Your task to perform on an android device: turn off notifications settings in the gmail app Image 0: 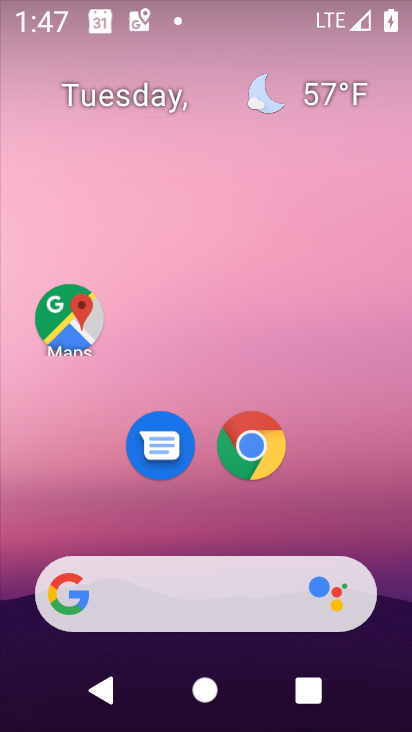
Step 0: drag from (354, 519) to (401, 125)
Your task to perform on an android device: turn off notifications settings in the gmail app Image 1: 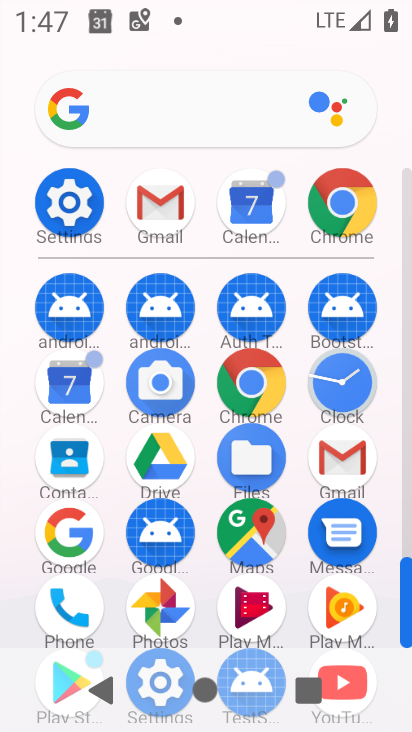
Step 1: click (353, 464)
Your task to perform on an android device: turn off notifications settings in the gmail app Image 2: 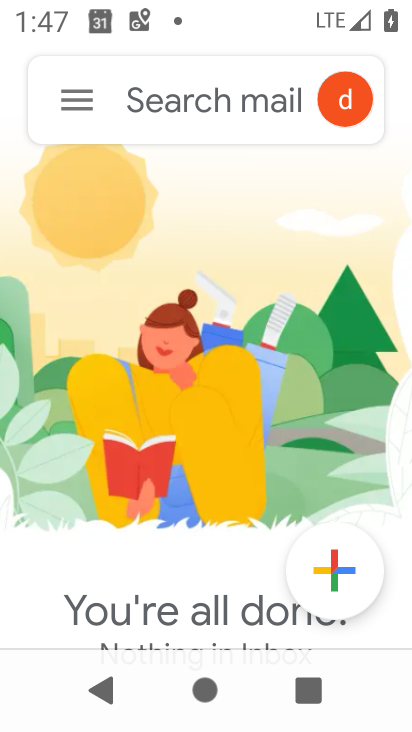
Step 2: click (83, 105)
Your task to perform on an android device: turn off notifications settings in the gmail app Image 3: 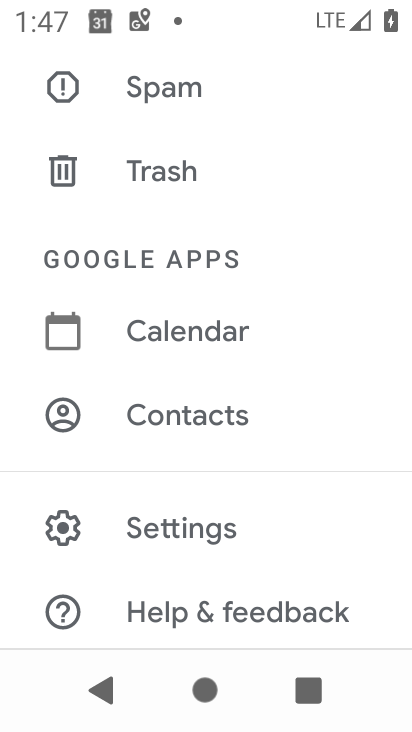
Step 3: drag from (328, 260) to (340, 345)
Your task to perform on an android device: turn off notifications settings in the gmail app Image 4: 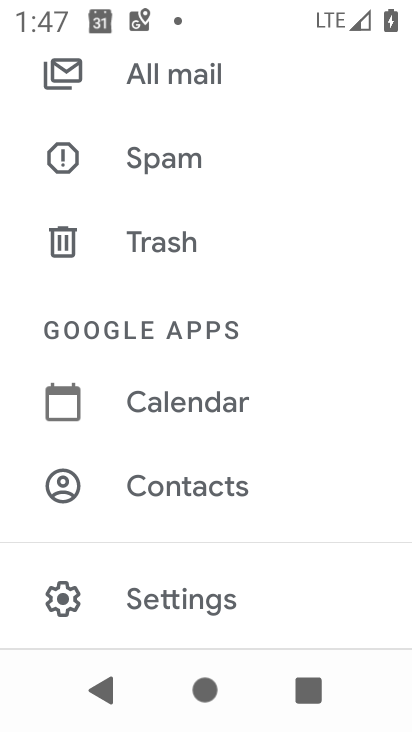
Step 4: drag from (332, 197) to (341, 311)
Your task to perform on an android device: turn off notifications settings in the gmail app Image 5: 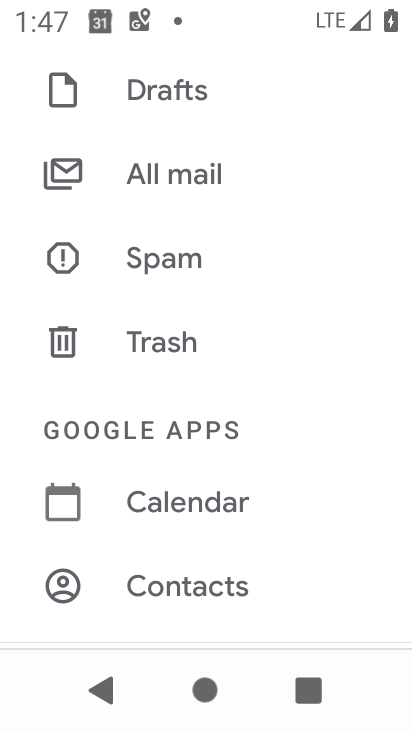
Step 5: drag from (343, 192) to (347, 324)
Your task to perform on an android device: turn off notifications settings in the gmail app Image 6: 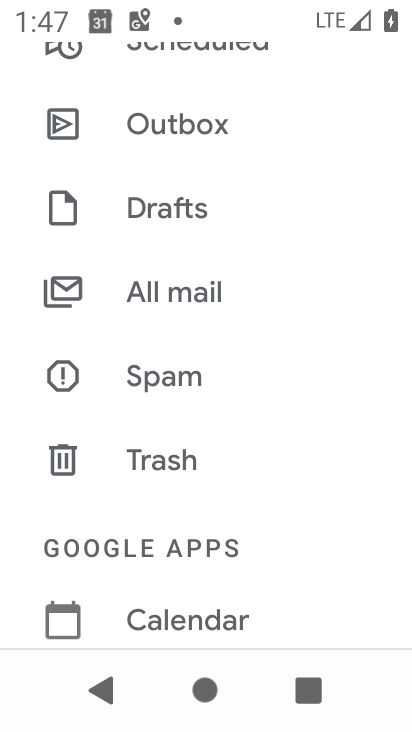
Step 6: drag from (337, 163) to (344, 257)
Your task to perform on an android device: turn off notifications settings in the gmail app Image 7: 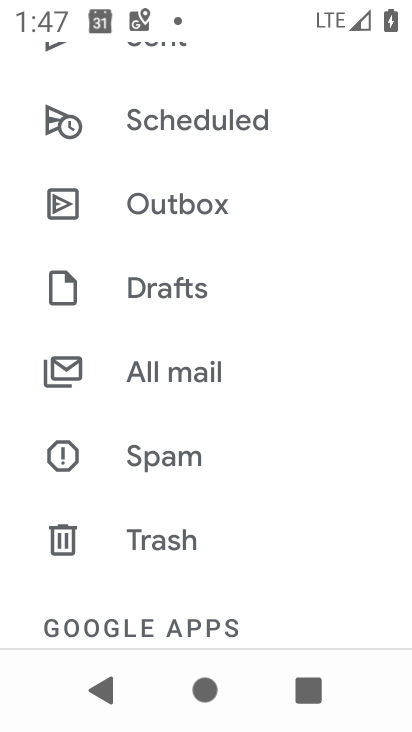
Step 7: drag from (338, 135) to (345, 244)
Your task to perform on an android device: turn off notifications settings in the gmail app Image 8: 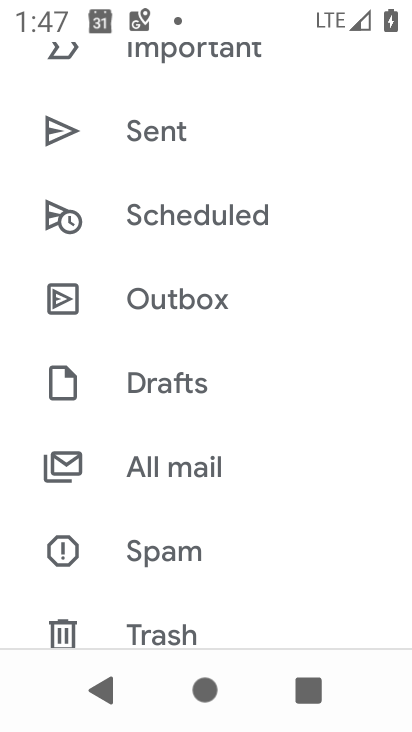
Step 8: drag from (339, 140) to (340, 253)
Your task to perform on an android device: turn off notifications settings in the gmail app Image 9: 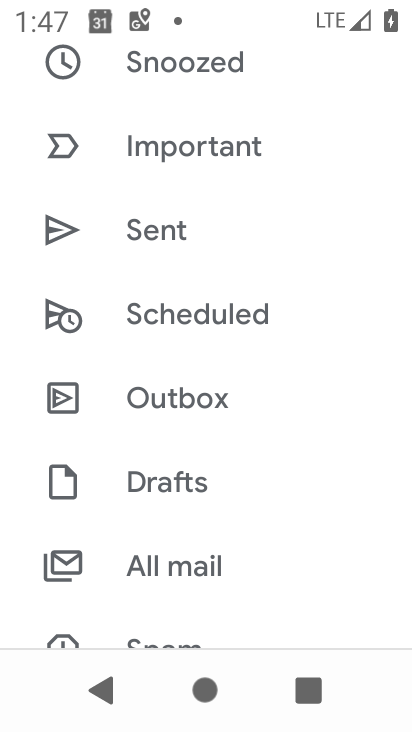
Step 9: drag from (325, 107) to (339, 249)
Your task to perform on an android device: turn off notifications settings in the gmail app Image 10: 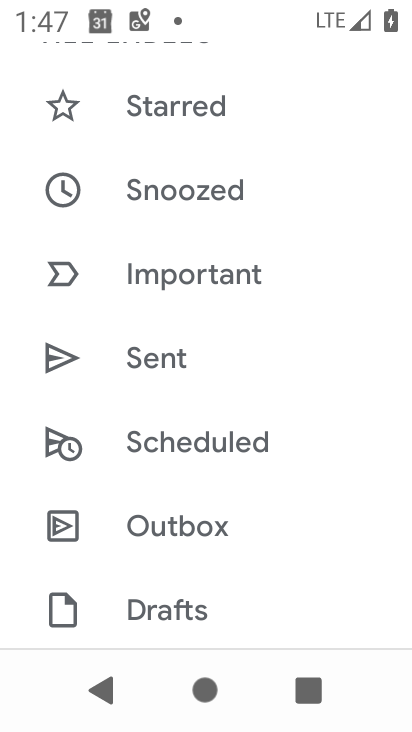
Step 10: drag from (322, 103) to (334, 211)
Your task to perform on an android device: turn off notifications settings in the gmail app Image 11: 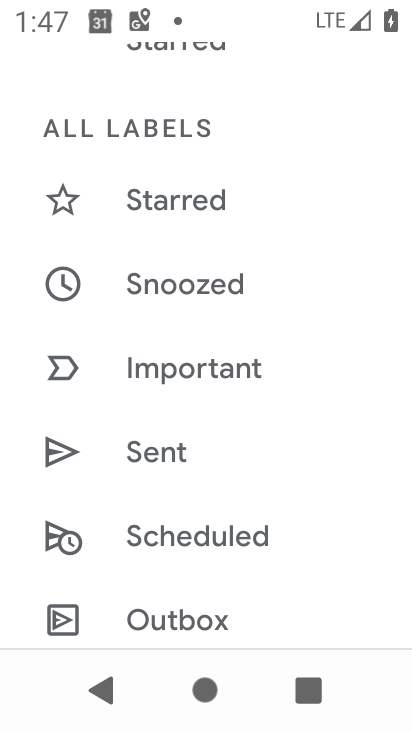
Step 11: drag from (330, 230) to (303, 84)
Your task to perform on an android device: turn off notifications settings in the gmail app Image 12: 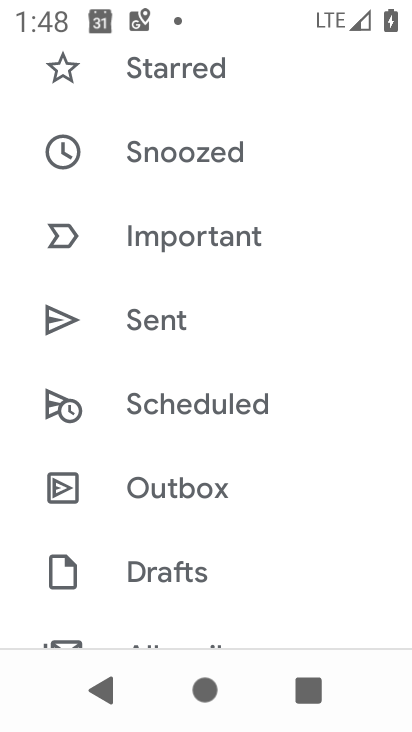
Step 12: drag from (315, 259) to (315, 134)
Your task to perform on an android device: turn off notifications settings in the gmail app Image 13: 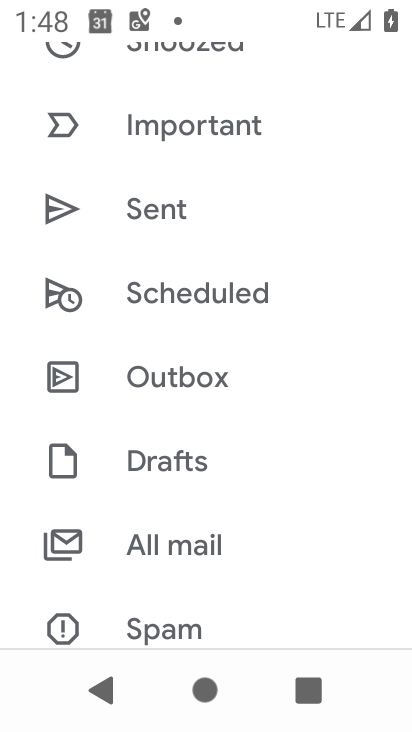
Step 13: drag from (325, 278) to (316, 159)
Your task to perform on an android device: turn off notifications settings in the gmail app Image 14: 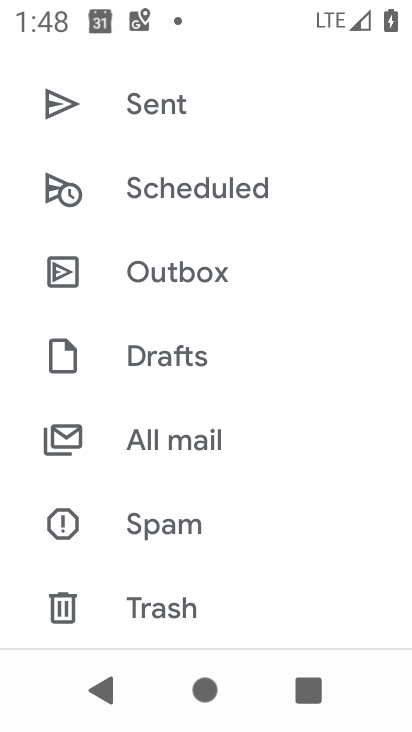
Step 14: drag from (316, 306) to (333, 164)
Your task to perform on an android device: turn off notifications settings in the gmail app Image 15: 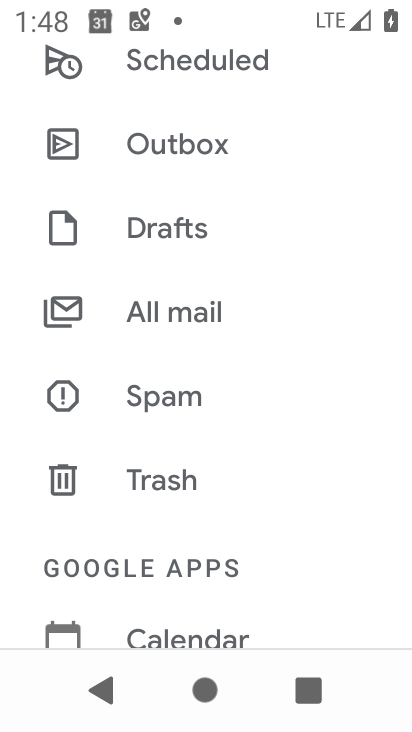
Step 15: drag from (321, 368) to (305, 211)
Your task to perform on an android device: turn off notifications settings in the gmail app Image 16: 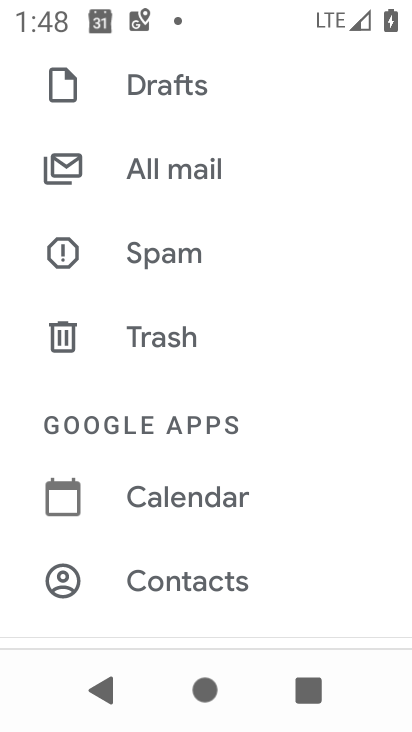
Step 16: drag from (317, 439) to (314, 243)
Your task to perform on an android device: turn off notifications settings in the gmail app Image 17: 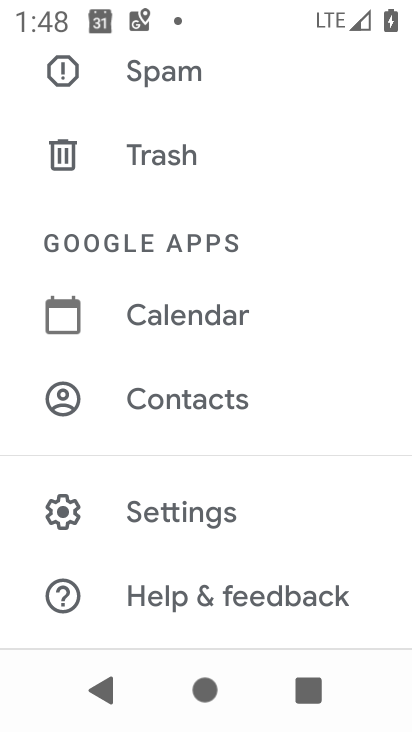
Step 17: drag from (295, 438) to (300, 253)
Your task to perform on an android device: turn off notifications settings in the gmail app Image 18: 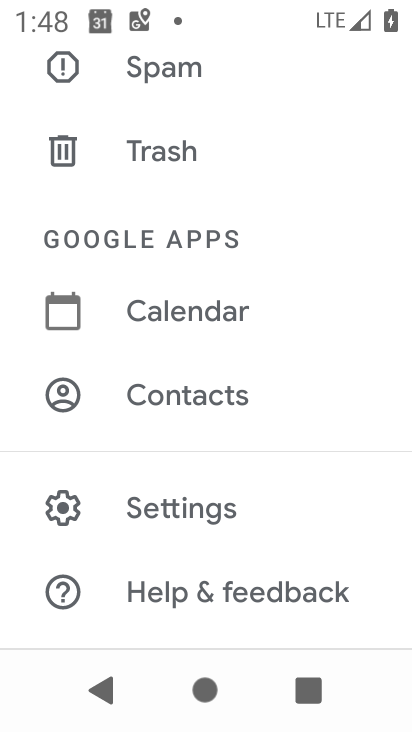
Step 18: click (227, 511)
Your task to perform on an android device: turn off notifications settings in the gmail app Image 19: 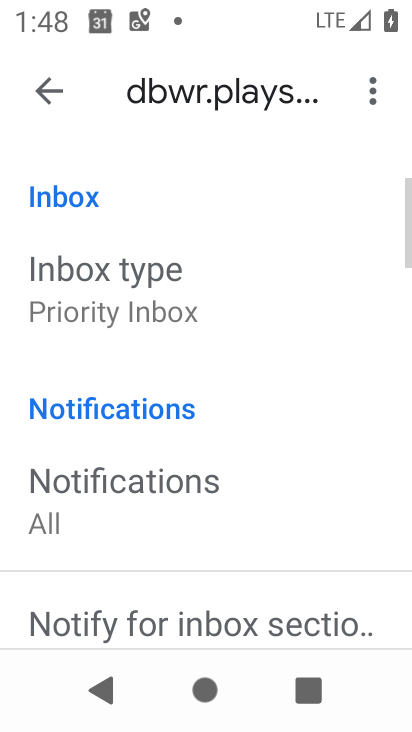
Step 19: drag from (332, 388) to (332, 265)
Your task to perform on an android device: turn off notifications settings in the gmail app Image 20: 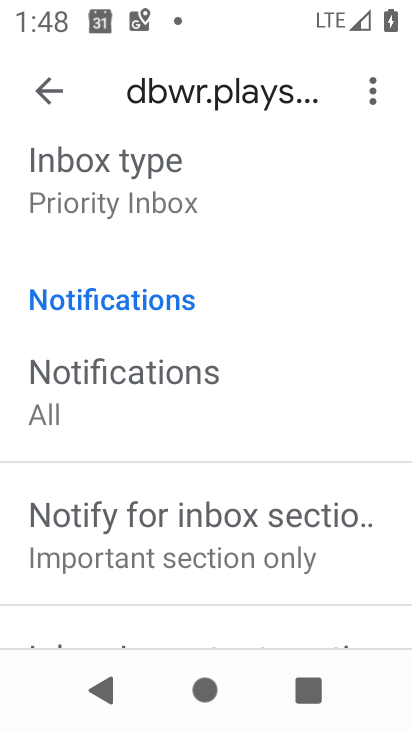
Step 20: drag from (349, 405) to (337, 298)
Your task to perform on an android device: turn off notifications settings in the gmail app Image 21: 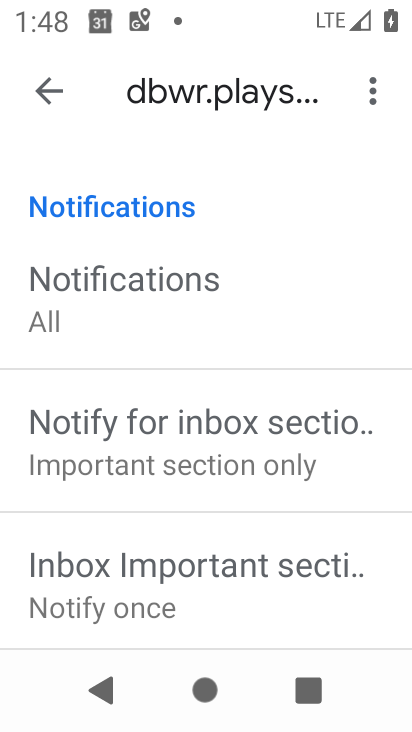
Step 21: drag from (350, 472) to (356, 302)
Your task to perform on an android device: turn off notifications settings in the gmail app Image 22: 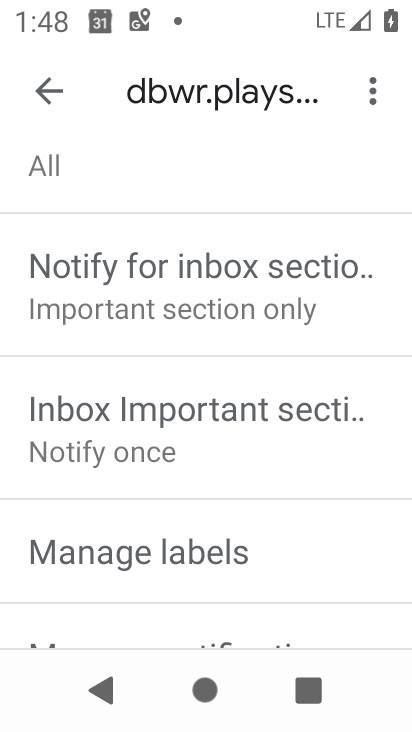
Step 22: drag from (339, 472) to (336, 312)
Your task to perform on an android device: turn off notifications settings in the gmail app Image 23: 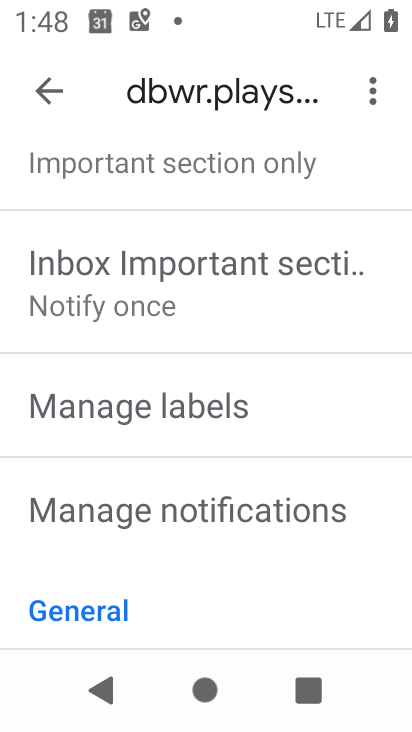
Step 23: drag from (333, 444) to (330, 312)
Your task to perform on an android device: turn off notifications settings in the gmail app Image 24: 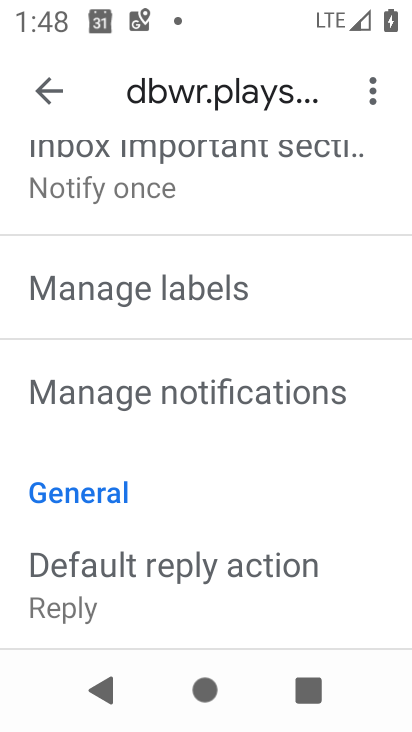
Step 24: drag from (334, 503) to (342, 351)
Your task to perform on an android device: turn off notifications settings in the gmail app Image 25: 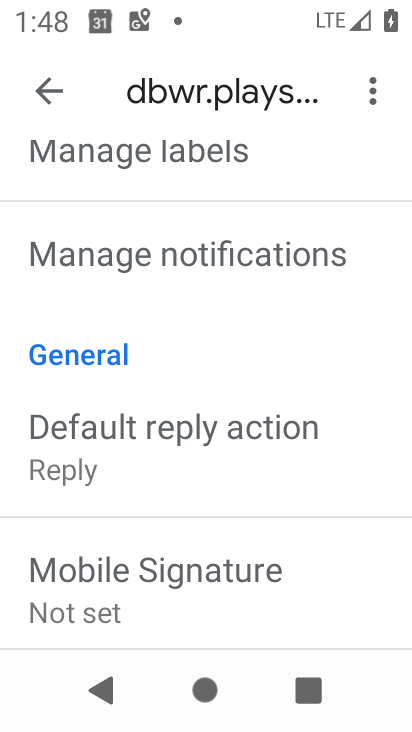
Step 25: click (260, 256)
Your task to perform on an android device: turn off notifications settings in the gmail app Image 26: 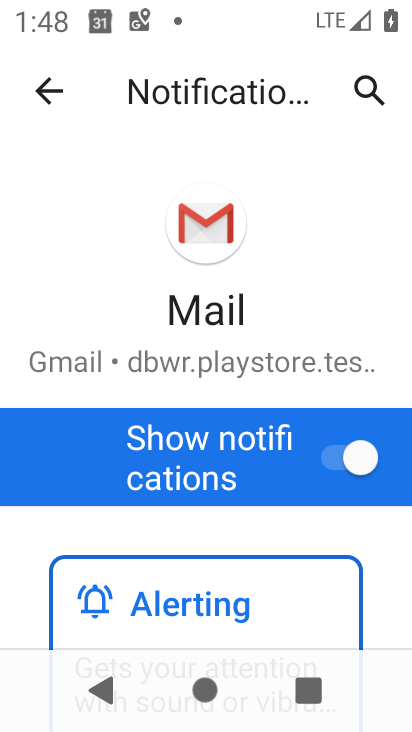
Step 26: click (341, 468)
Your task to perform on an android device: turn off notifications settings in the gmail app Image 27: 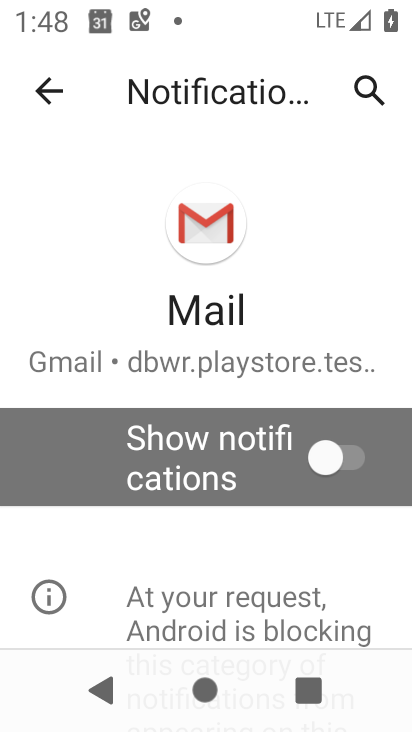
Step 27: task complete